Your task to perform on an android device: visit the assistant section in the google photos Image 0: 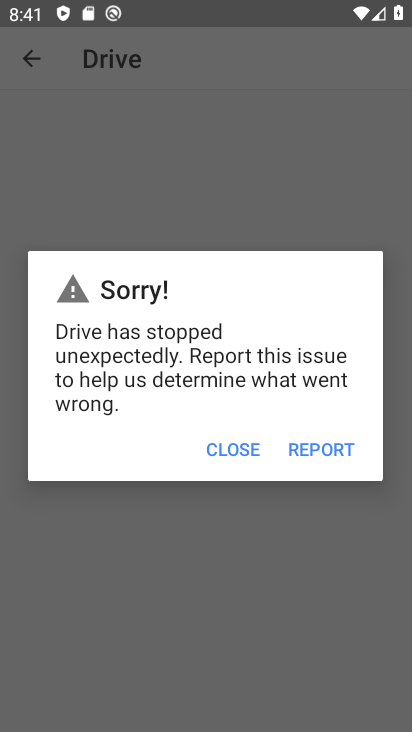
Step 0: press home button
Your task to perform on an android device: visit the assistant section in the google photos Image 1: 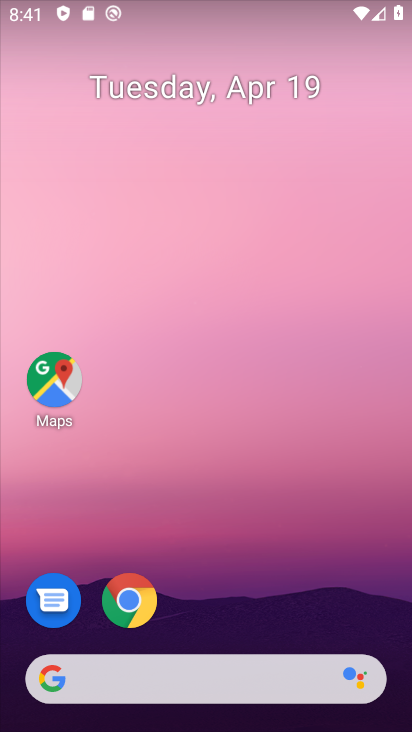
Step 1: drag from (251, 607) to (248, 77)
Your task to perform on an android device: visit the assistant section in the google photos Image 2: 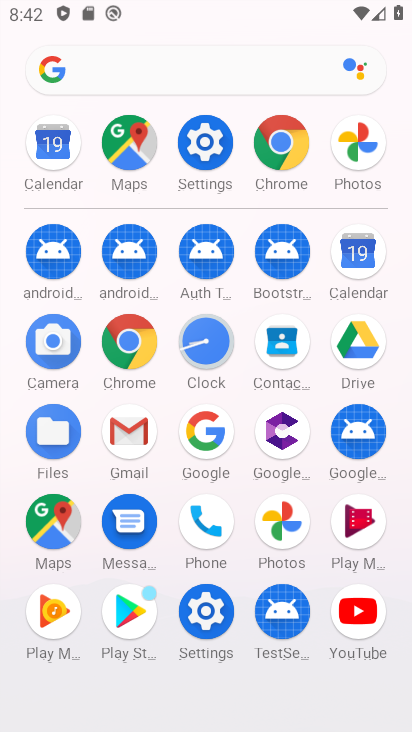
Step 2: click (291, 530)
Your task to perform on an android device: visit the assistant section in the google photos Image 3: 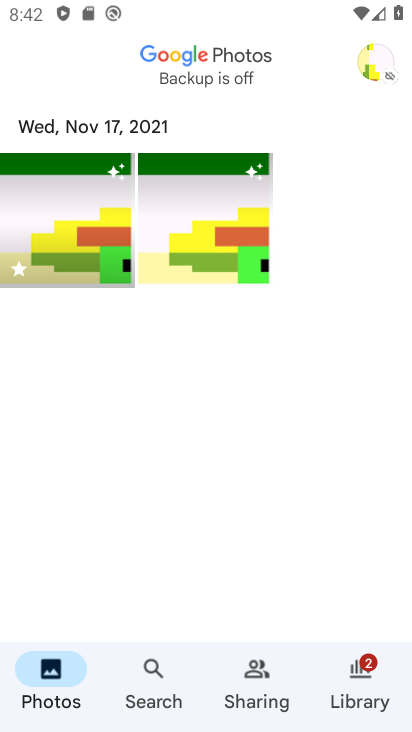
Step 3: task complete